Your task to perform on an android device: toggle notification dots Image 0: 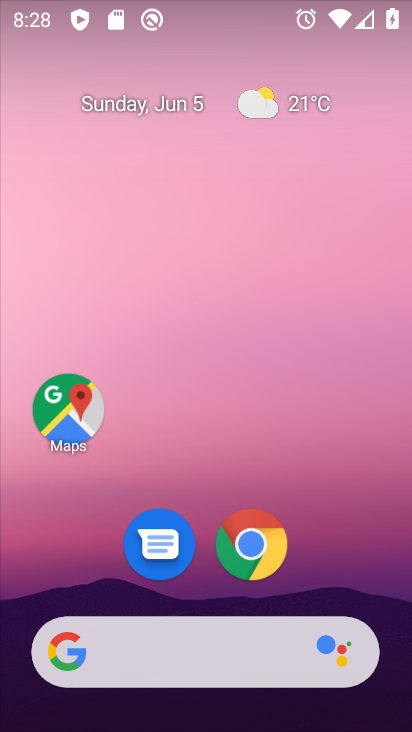
Step 0: drag from (392, 704) to (360, 20)
Your task to perform on an android device: toggle notification dots Image 1: 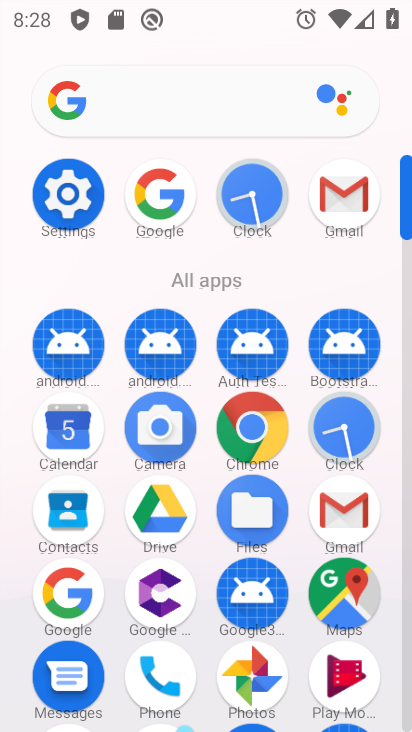
Step 1: click (56, 190)
Your task to perform on an android device: toggle notification dots Image 2: 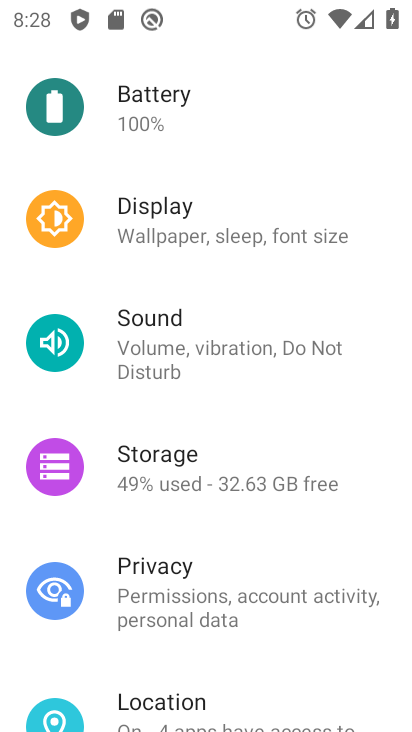
Step 2: drag from (265, 693) to (243, 326)
Your task to perform on an android device: toggle notification dots Image 3: 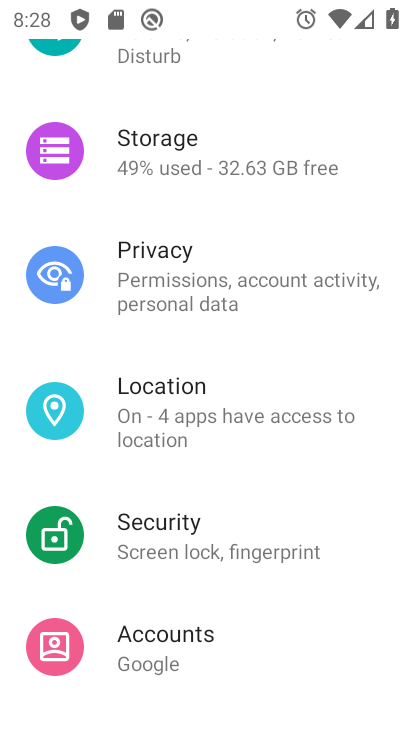
Step 3: drag from (263, 131) to (328, 622)
Your task to perform on an android device: toggle notification dots Image 4: 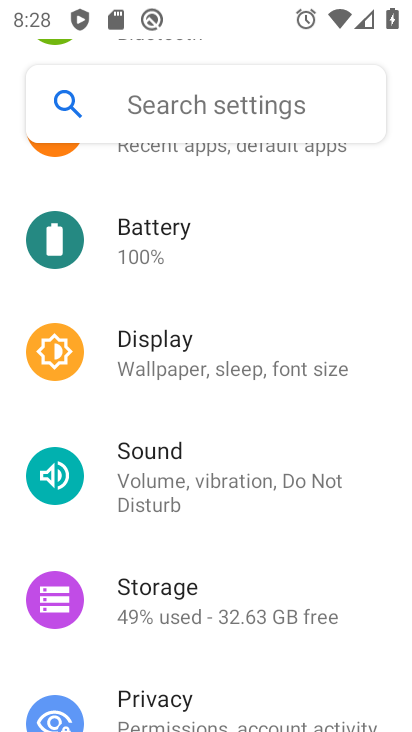
Step 4: drag from (237, 241) to (288, 612)
Your task to perform on an android device: toggle notification dots Image 5: 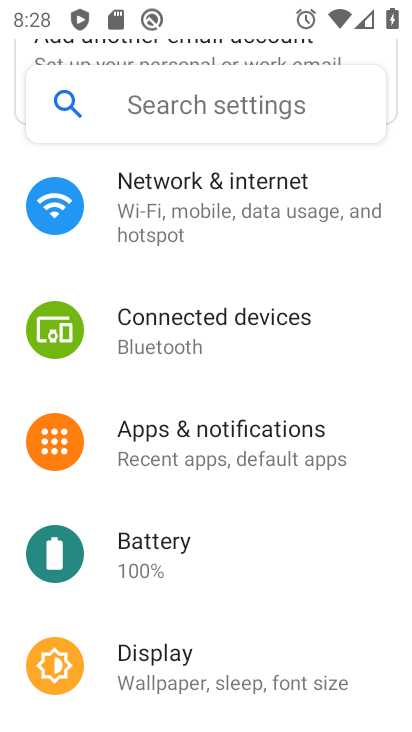
Step 5: click (197, 419)
Your task to perform on an android device: toggle notification dots Image 6: 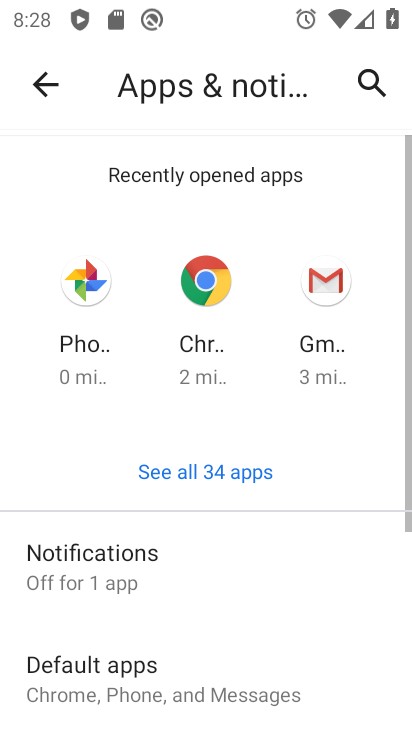
Step 6: click (102, 558)
Your task to perform on an android device: toggle notification dots Image 7: 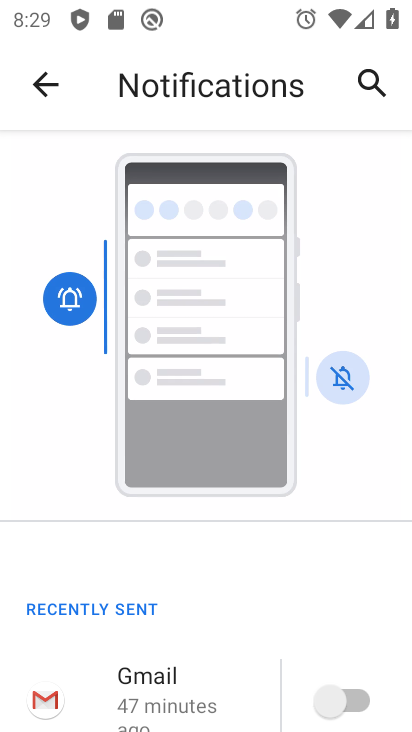
Step 7: drag from (251, 679) to (213, 229)
Your task to perform on an android device: toggle notification dots Image 8: 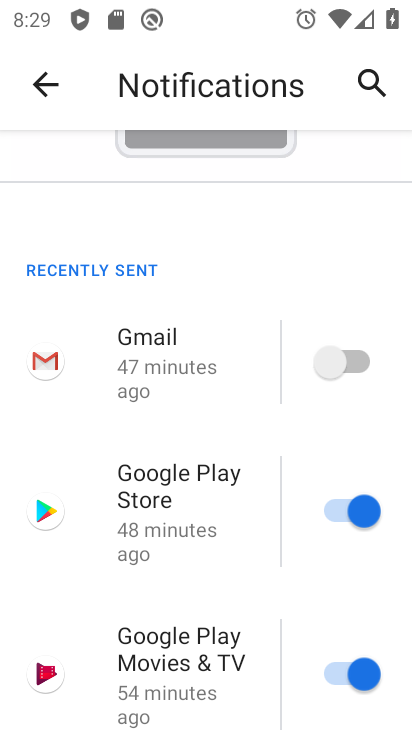
Step 8: drag from (245, 699) to (223, 285)
Your task to perform on an android device: toggle notification dots Image 9: 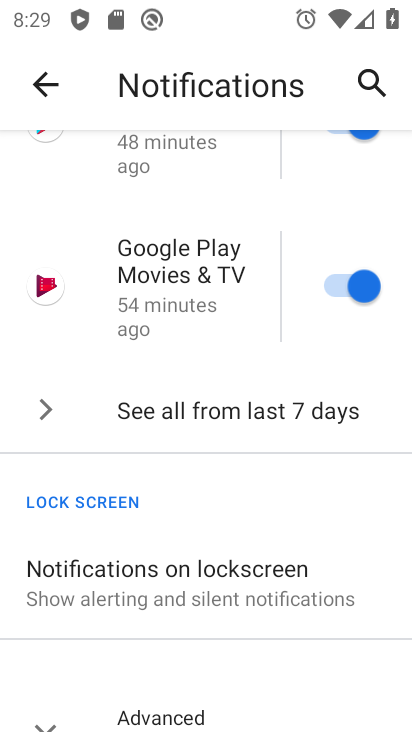
Step 9: drag from (190, 676) to (216, 383)
Your task to perform on an android device: toggle notification dots Image 10: 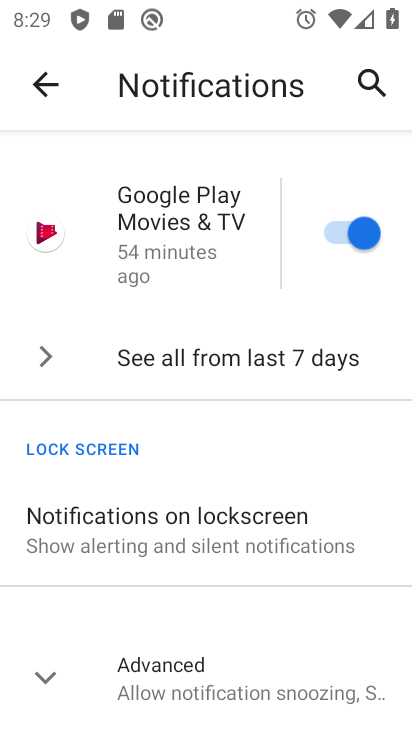
Step 10: drag from (184, 199) to (175, 623)
Your task to perform on an android device: toggle notification dots Image 11: 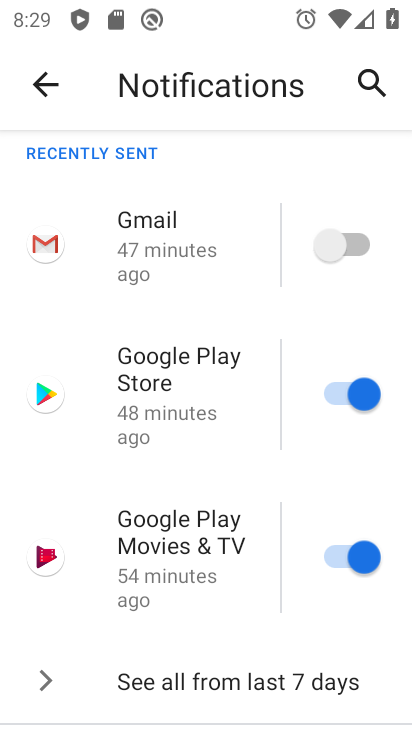
Step 11: click (326, 380)
Your task to perform on an android device: toggle notification dots Image 12: 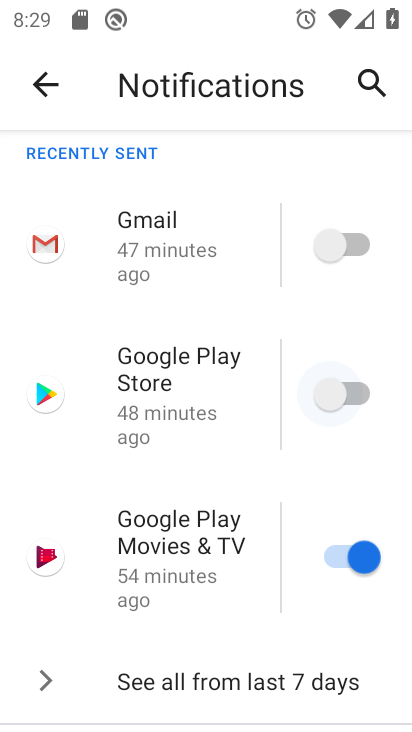
Step 12: click (328, 558)
Your task to perform on an android device: toggle notification dots Image 13: 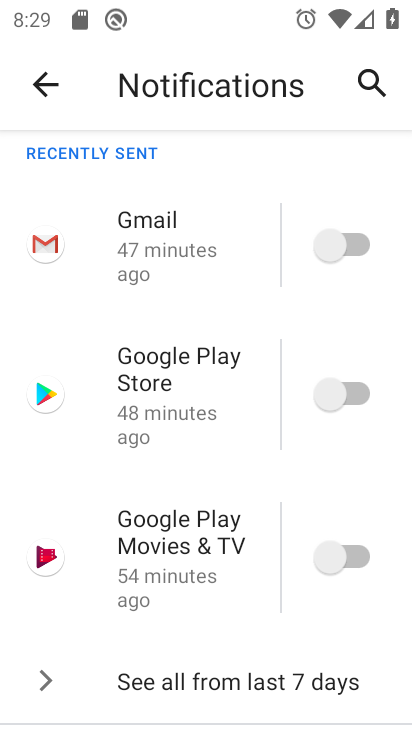
Step 13: task complete